Your task to perform on an android device: choose inbox layout in the gmail app Image 0: 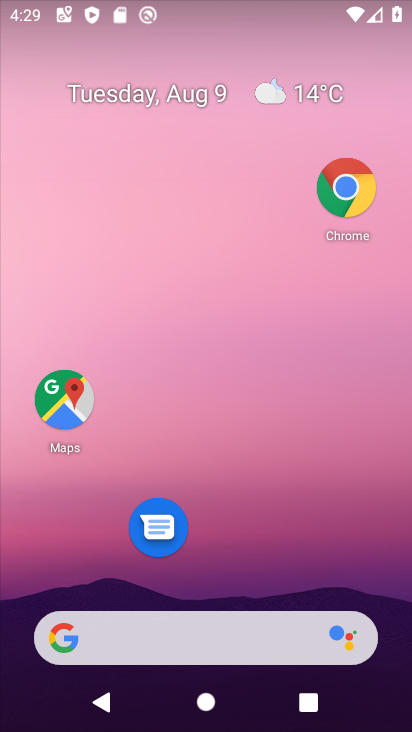
Step 0: drag from (264, 599) to (205, 122)
Your task to perform on an android device: choose inbox layout in the gmail app Image 1: 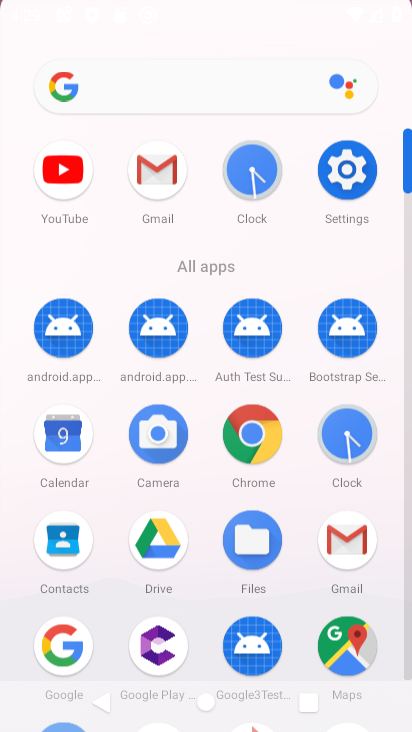
Step 1: click (205, 122)
Your task to perform on an android device: choose inbox layout in the gmail app Image 2: 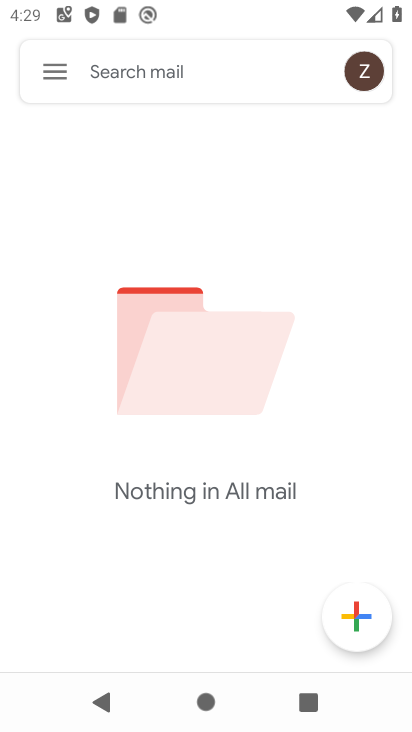
Step 2: click (49, 80)
Your task to perform on an android device: choose inbox layout in the gmail app Image 3: 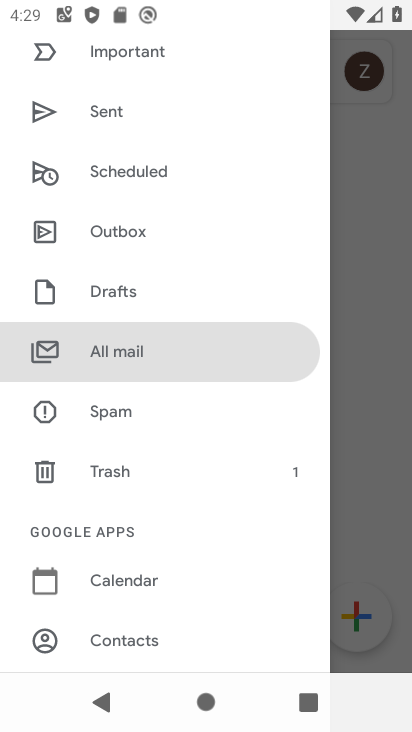
Step 3: drag from (155, 601) to (152, 60)
Your task to perform on an android device: choose inbox layout in the gmail app Image 4: 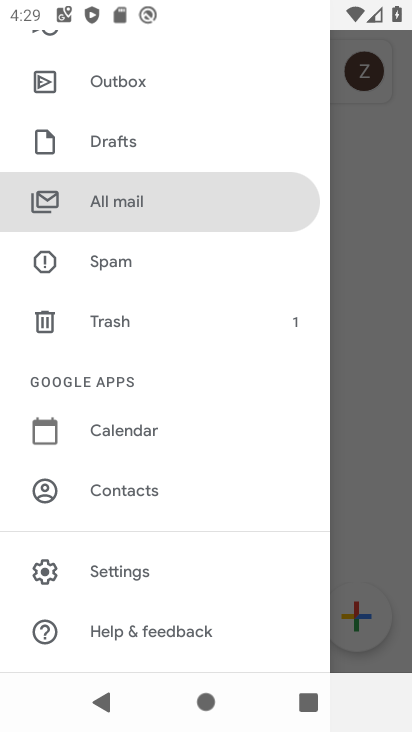
Step 4: click (173, 567)
Your task to perform on an android device: choose inbox layout in the gmail app Image 5: 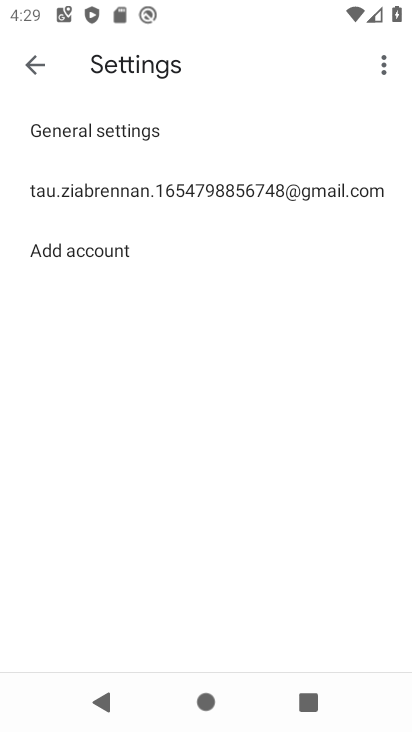
Step 5: click (226, 184)
Your task to perform on an android device: choose inbox layout in the gmail app Image 6: 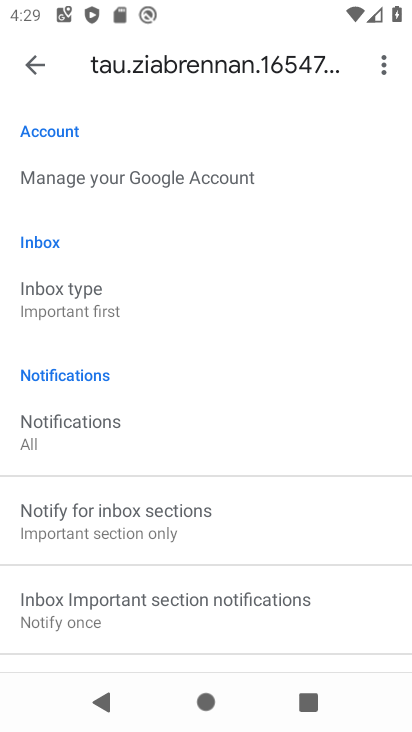
Step 6: click (128, 304)
Your task to perform on an android device: choose inbox layout in the gmail app Image 7: 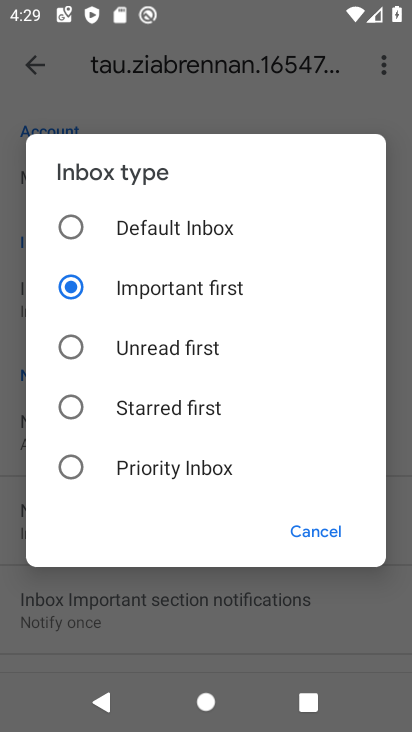
Step 7: click (142, 371)
Your task to perform on an android device: choose inbox layout in the gmail app Image 8: 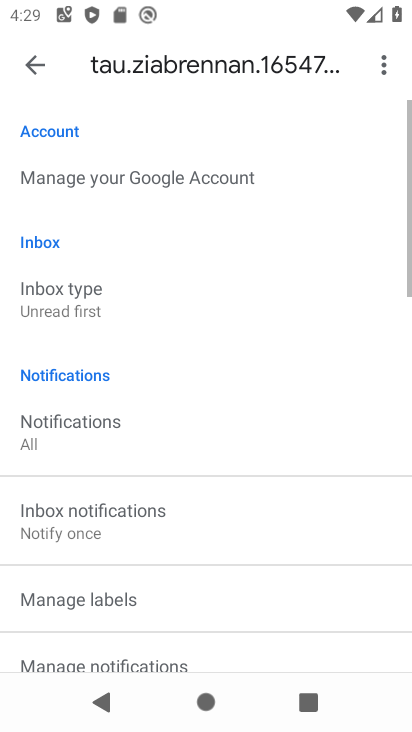
Step 8: task complete